Your task to perform on an android device: toggle pop-ups in chrome Image 0: 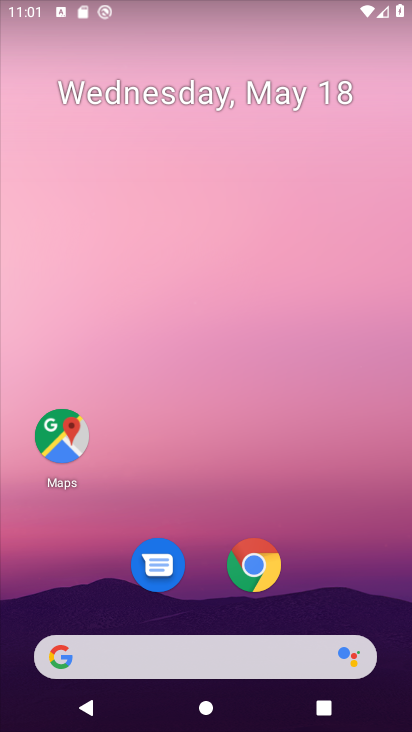
Step 0: click (237, 582)
Your task to perform on an android device: toggle pop-ups in chrome Image 1: 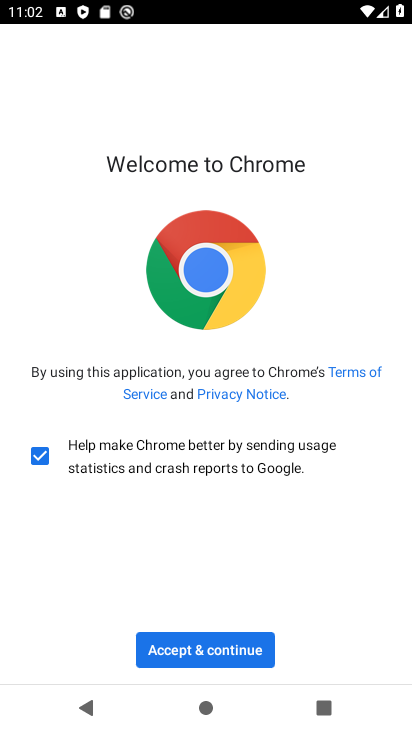
Step 1: click (187, 652)
Your task to perform on an android device: toggle pop-ups in chrome Image 2: 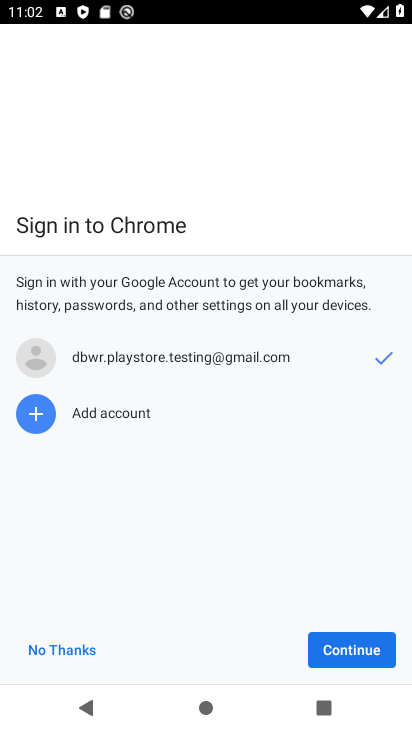
Step 2: click (338, 651)
Your task to perform on an android device: toggle pop-ups in chrome Image 3: 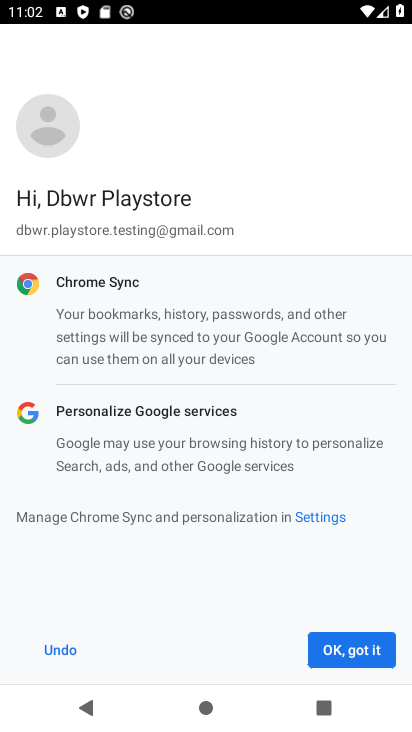
Step 3: click (338, 651)
Your task to perform on an android device: toggle pop-ups in chrome Image 4: 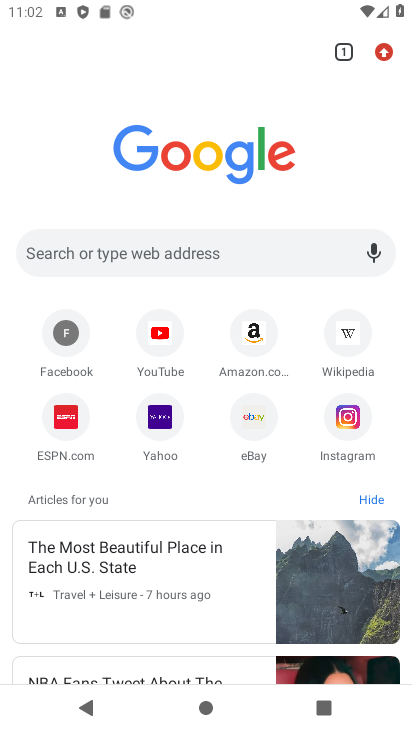
Step 4: drag from (383, 53) to (221, 488)
Your task to perform on an android device: toggle pop-ups in chrome Image 5: 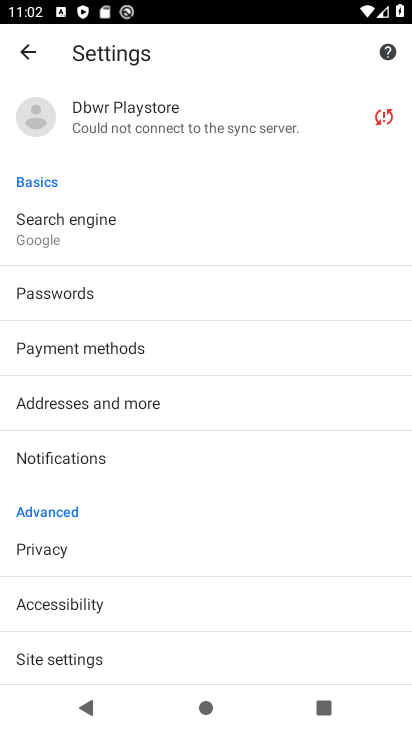
Step 5: click (103, 651)
Your task to perform on an android device: toggle pop-ups in chrome Image 6: 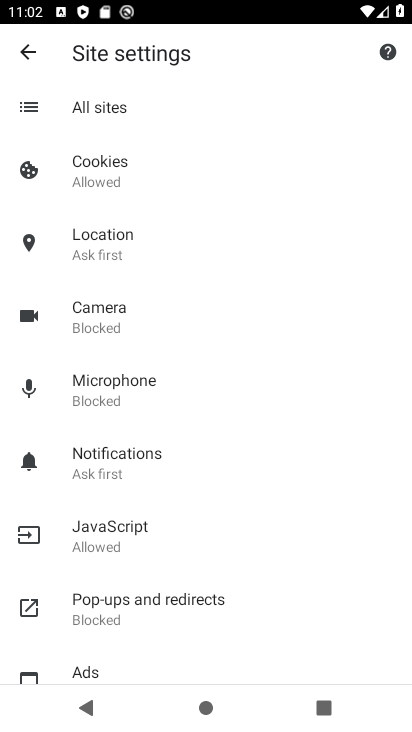
Step 6: click (135, 602)
Your task to perform on an android device: toggle pop-ups in chrome Image 7: 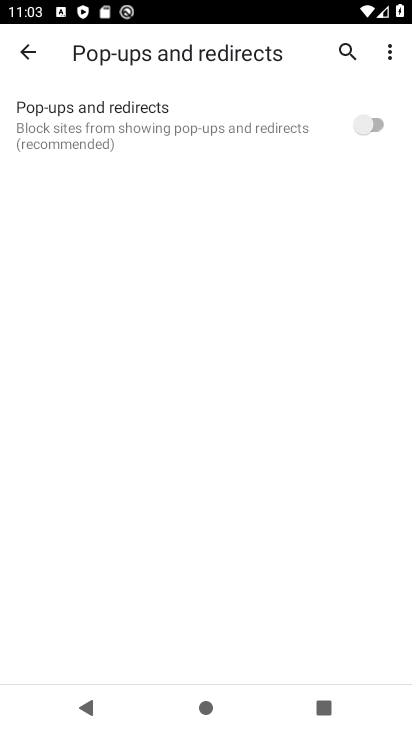
Step 7: click (372, 125)
Your task to perform on an android device: toggle pop-ups in chrome Image 8: 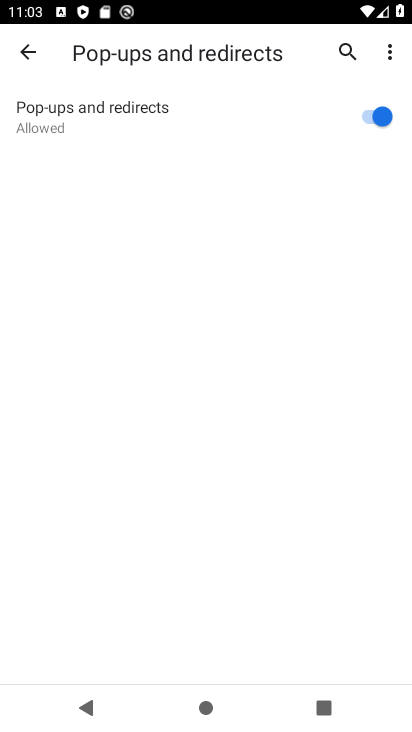
Step 8: task complete